Your task to perform on an android device: turn vacation reply on in the gmail app Image 0: 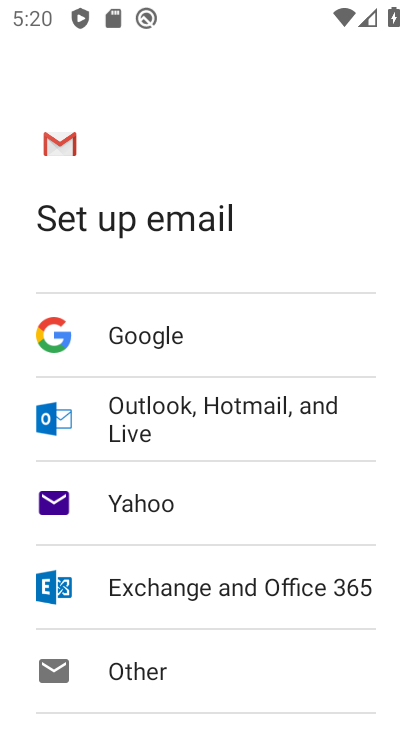
Step 0: press home button
Your task to perform on an android device: turn vacation reply on in the gmail app Image 1: 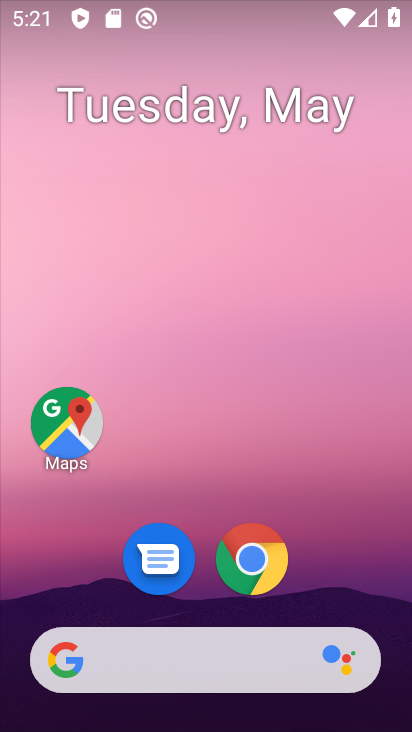
Step 1: drag from (211, 595) to (205, 375)
Your task to perform on an android device: turn vacation reply on in the gmail app Image 2: 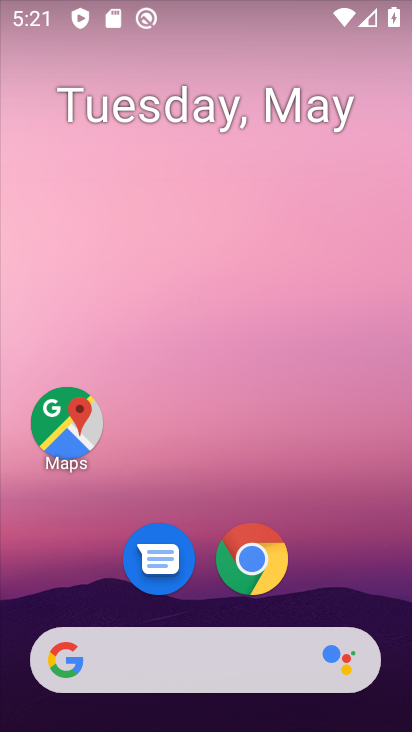
Step 2: drag from (212, 563) to (240, 119)
Your task to perform on an android device: turn vacation reply on in the gmail app Image 3: 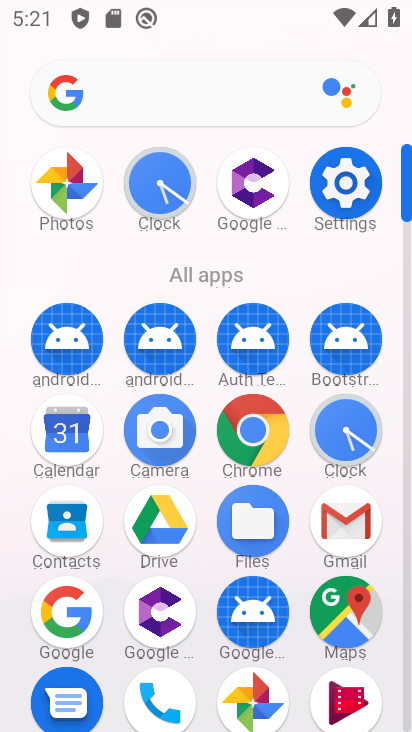
Step 3: click (339, 522)
Your task to perform on an android device: turn vacation reply on in the gmail app Image 4: 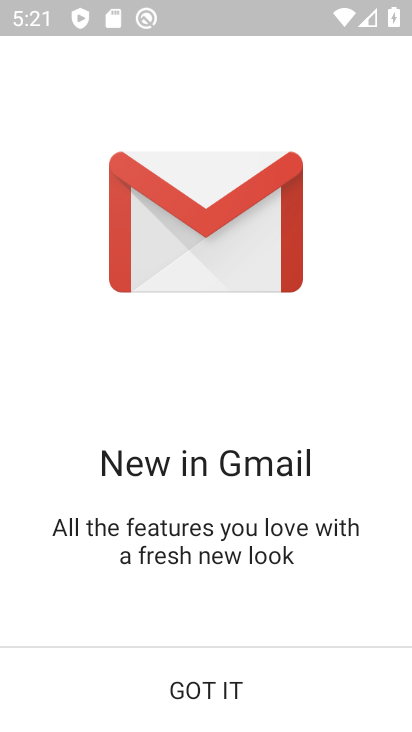
Step 4: click (206, 690)
Your task to perform on an android device: turn vacation reply on in the gmail app Image 5: 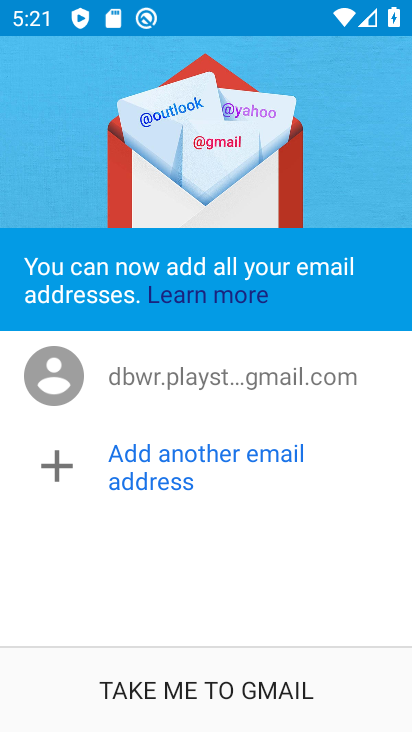
Step 5: click (196, 684)
Your task to perform on an android device: turn vacation reply on in the gmail app Image 6: 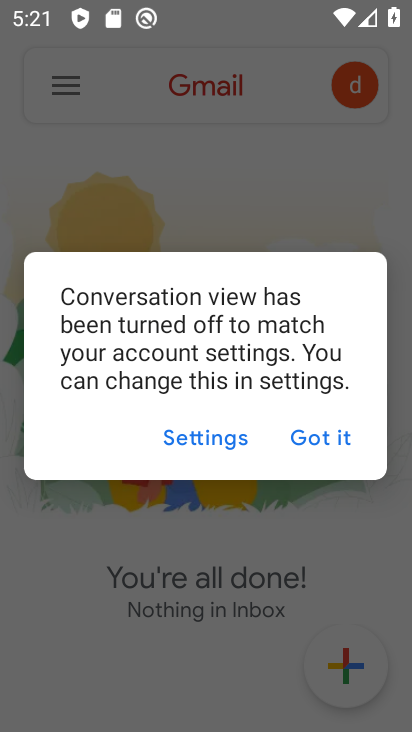
Step 6: click (313, 448)
Your task to perform on an android device: turn vacation reply on in the gmail app Image 7: 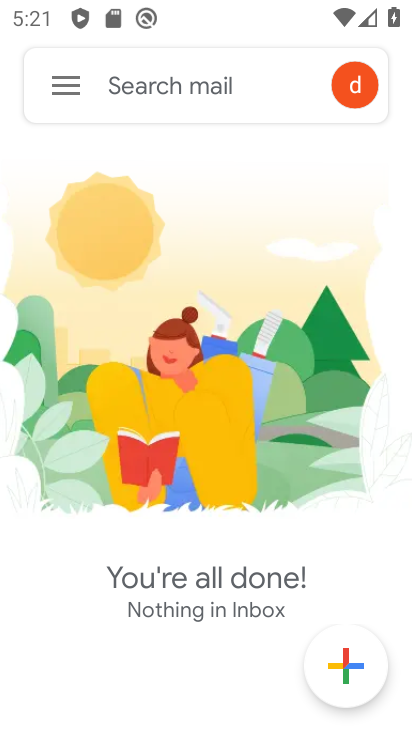
Step 7: click (56, 86)
Your task to perform on an android device: turn vacation reply on in the gmail app Image 8: 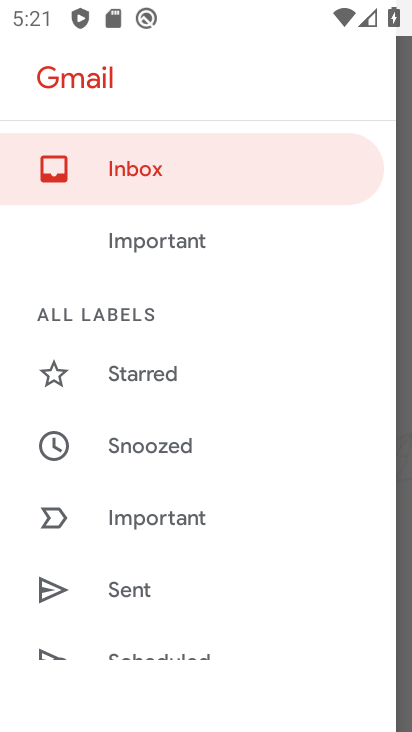
Step 8: drag from (175, 561) to (162, 166)
Your task to perform on an android device: turn vacation reply on in the gmail app Image 9: 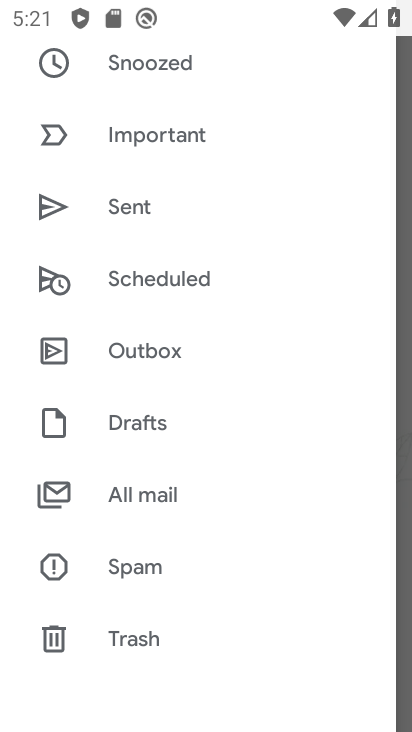
Step 9: drag from (174, 525) to (226, 210)
Your task to perform on an android device: turn vacation reply on in the gmail app Image 10: 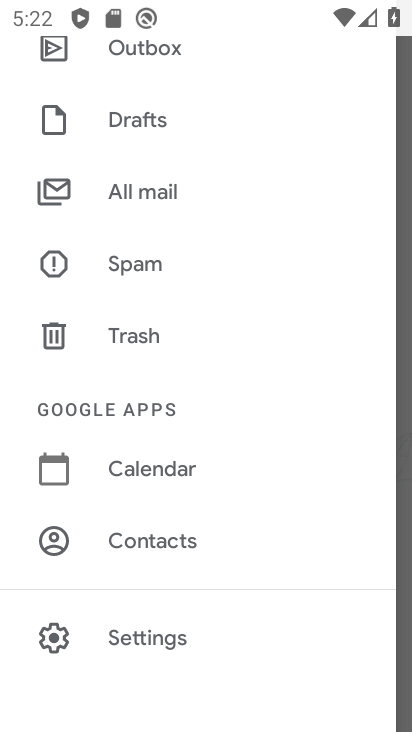
Step 10: click (132, 634)
Your task to perform on an android device: turn vacation reply on in the gmail app Image 11: 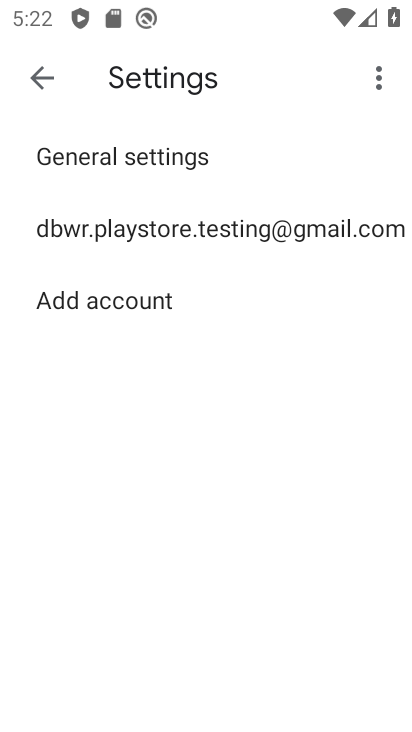
Step 11: click (153, 240)
Your task to perform on an android device: turn vacation reply on in the gmail app Image 12: 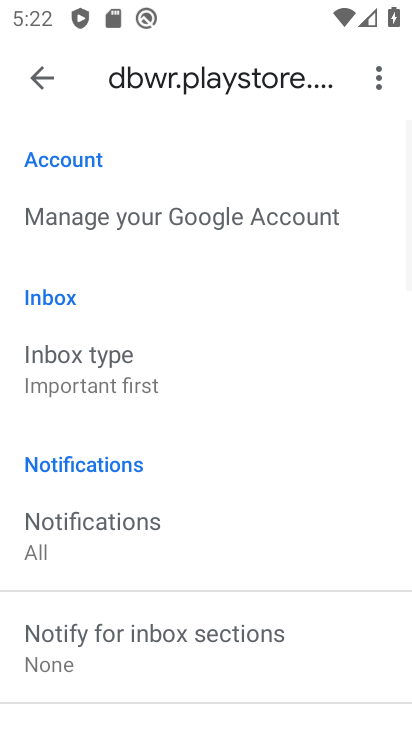
Step 12: drag from (170, 665) to (179, 341)
Your task to perform on an android device: turn vacation reply on in the gmail app Image 13: 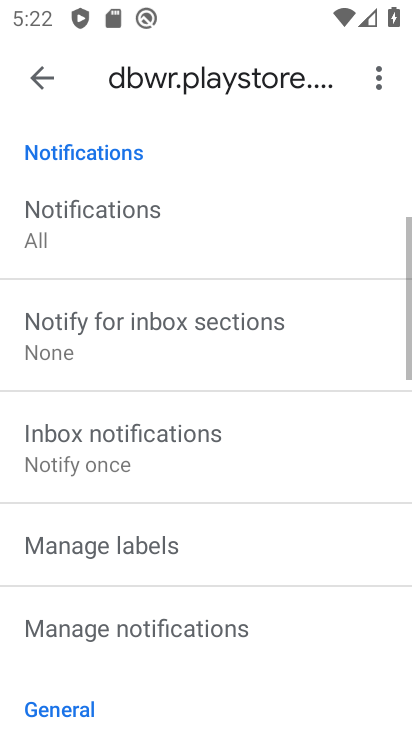
Step 13: drag from (163, 611) to (184, 296)
Your task to perform on an android device: turn vacation reply on in the gmail app Image 14: 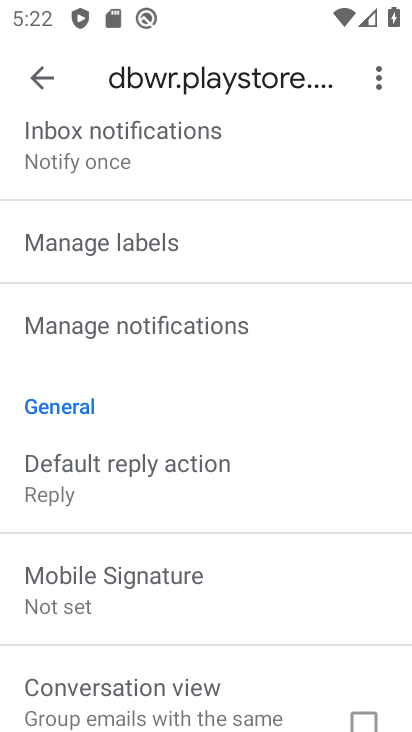
Step 14: drag from (173, 605) to (226, 355)
Your task to perform on an android device: turn vacation reply on in the gmail app Image 15: 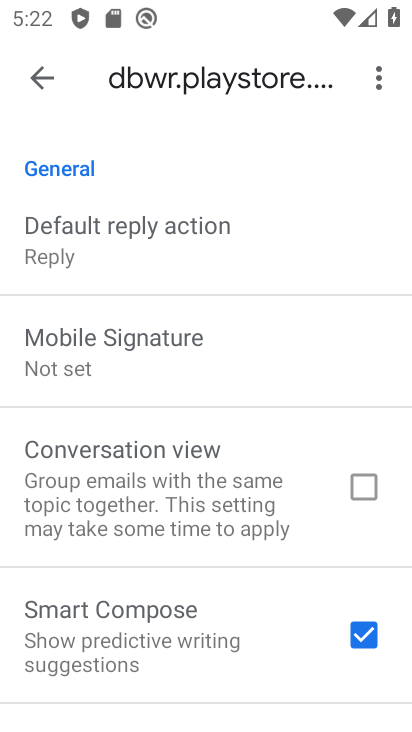
Step 15: drag from (188, 645) to (221, 365)
Your task to perform on an android device: turn vacation reply on in the gmail app Image 16: 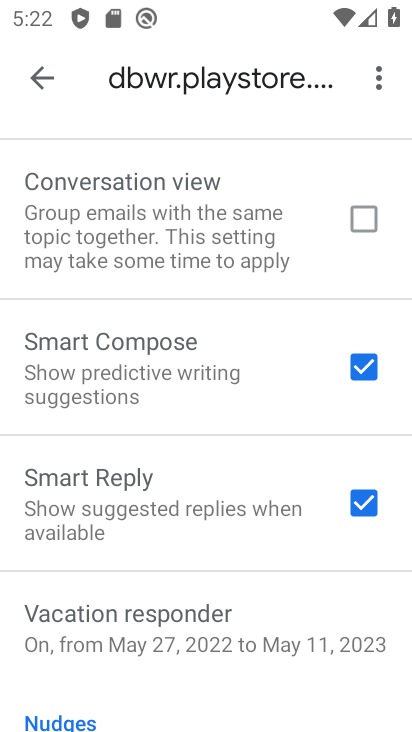
Step 16: click (163, 638)
Your task to perform on an android device: turn vacation reply on in the gmail app Image 17: 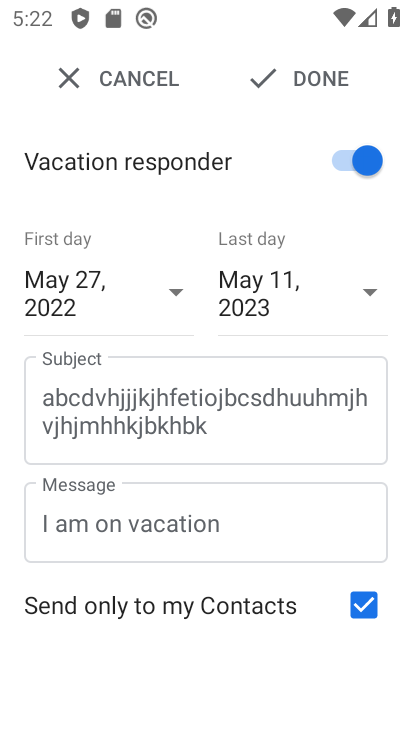
Step 17: task complete